Your task to perform on an android device: open chrome and create a bookmark for the current page Image 0: 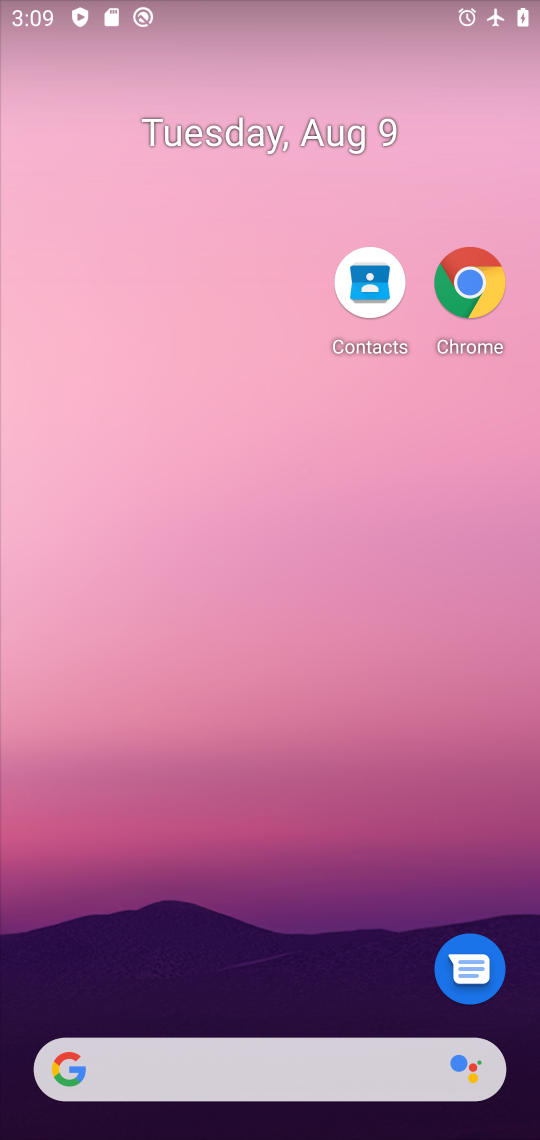
Step 0: drag from (354, 911) to (278, 159)
Your task to perform on an android device: open chrome and create a bookmark for the current page Image 1: 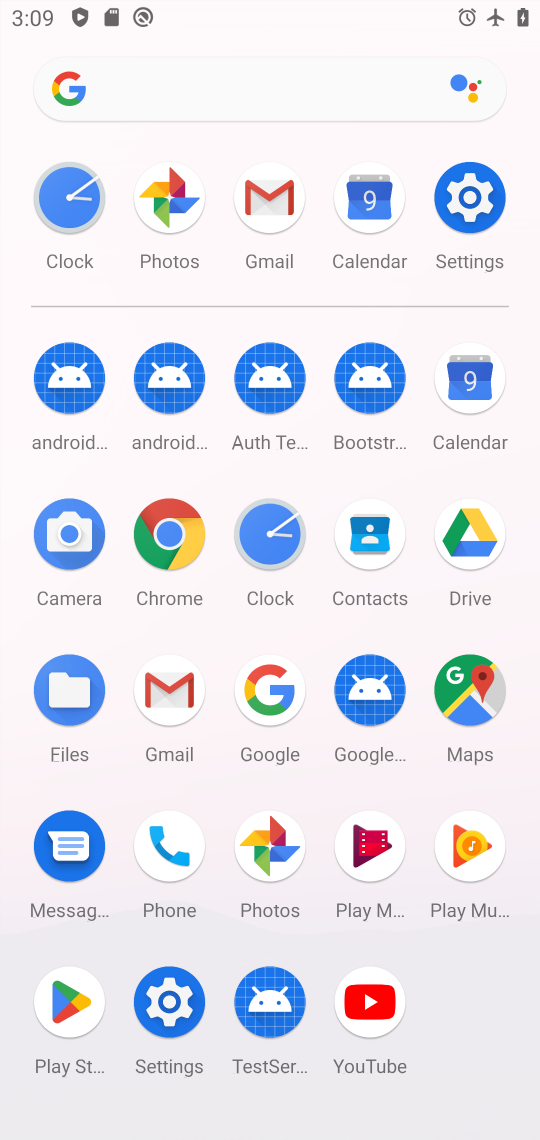
Step 1: click (182, 542)
Your task to perform on an android device: open chrome and create a bookmark for the current page Image 2: 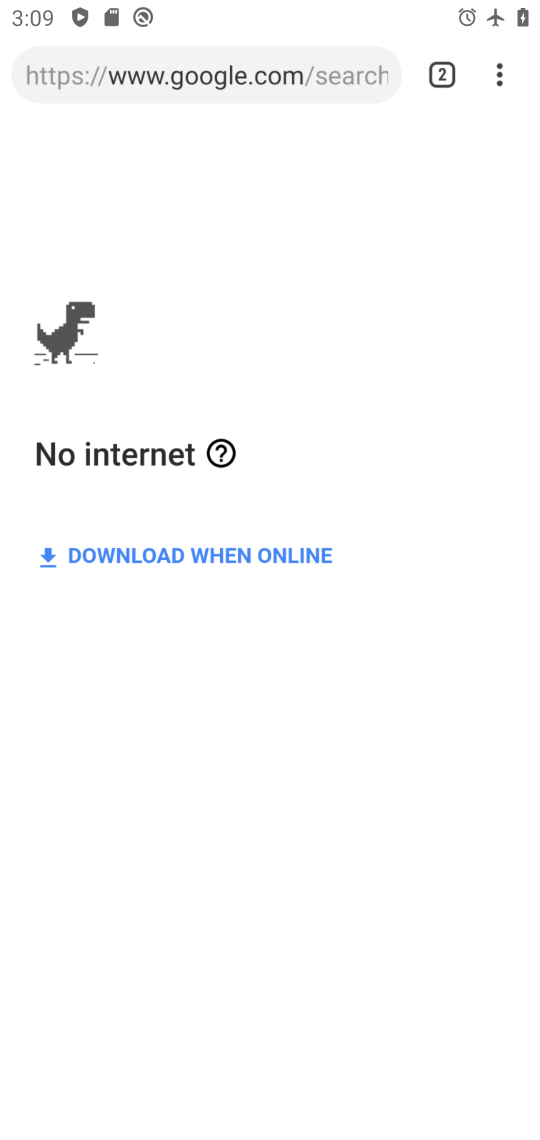
Step 2: click (166, 522)
Your task to perform on an android device: open chrome and create a bookmark for the current page Image 3: 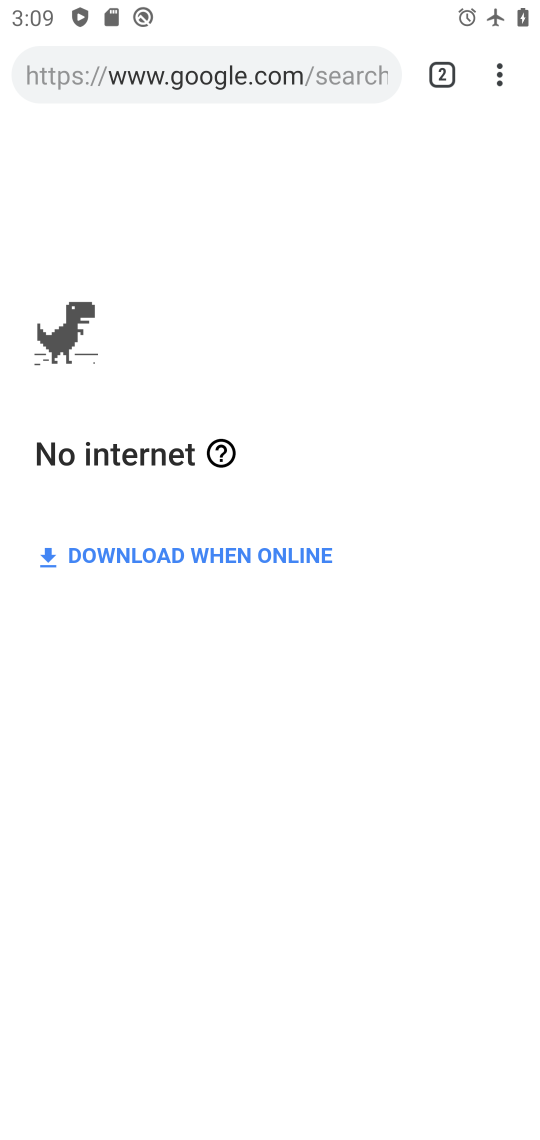
Step 3: click (178, 541)
Your task to perform on an android device: open chrome and create a bookmark for the current page Image 4: 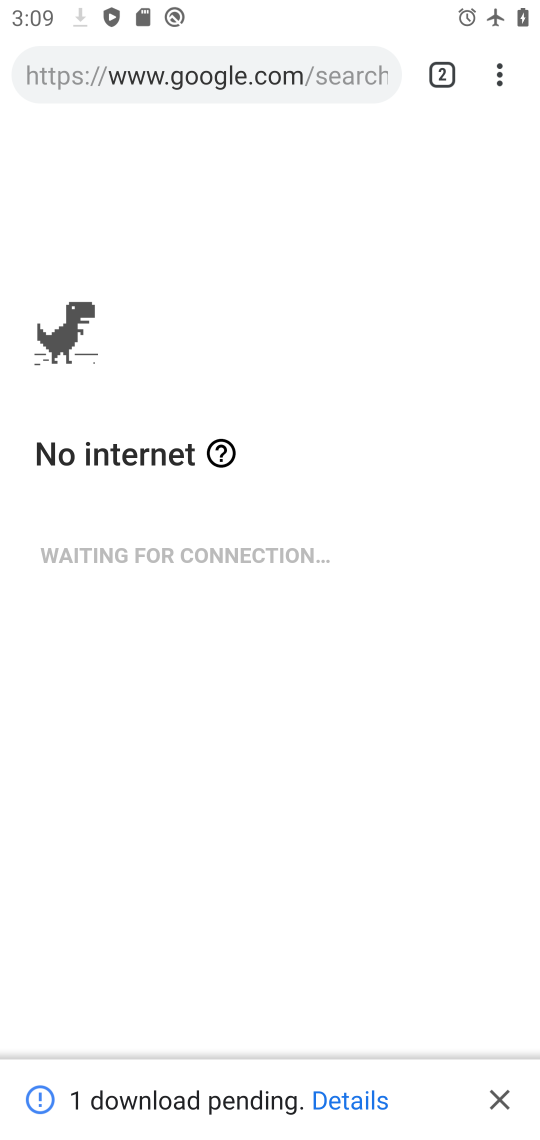
Step 4: task complete